Your task to perform on an android device: Open Google Chrome and open the bookmarks view Image 0: 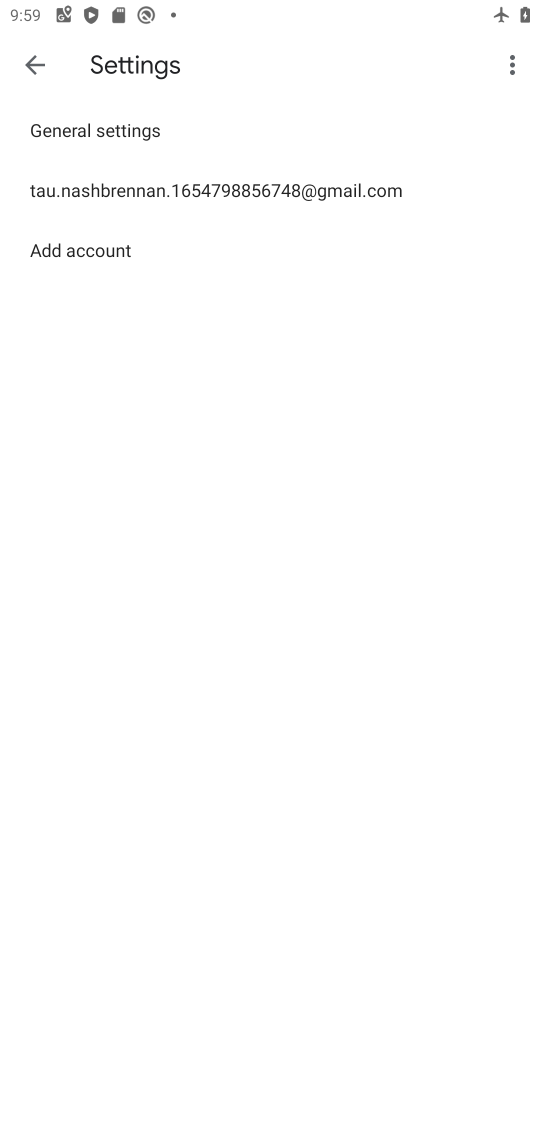
Step 0: press home button
Your task to perform on an android device: Open Google Chrome and open the bookmarks view Image 1: 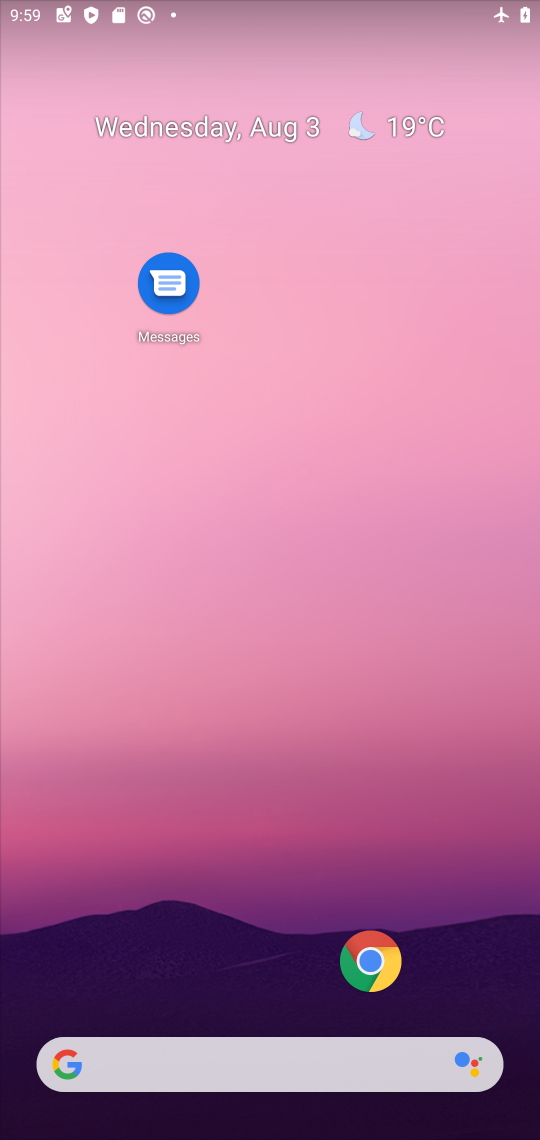
Step 1: click (396, 960)
Your task to perform on an android device: Open Google Chrome and open the bookmarks view Image 2: 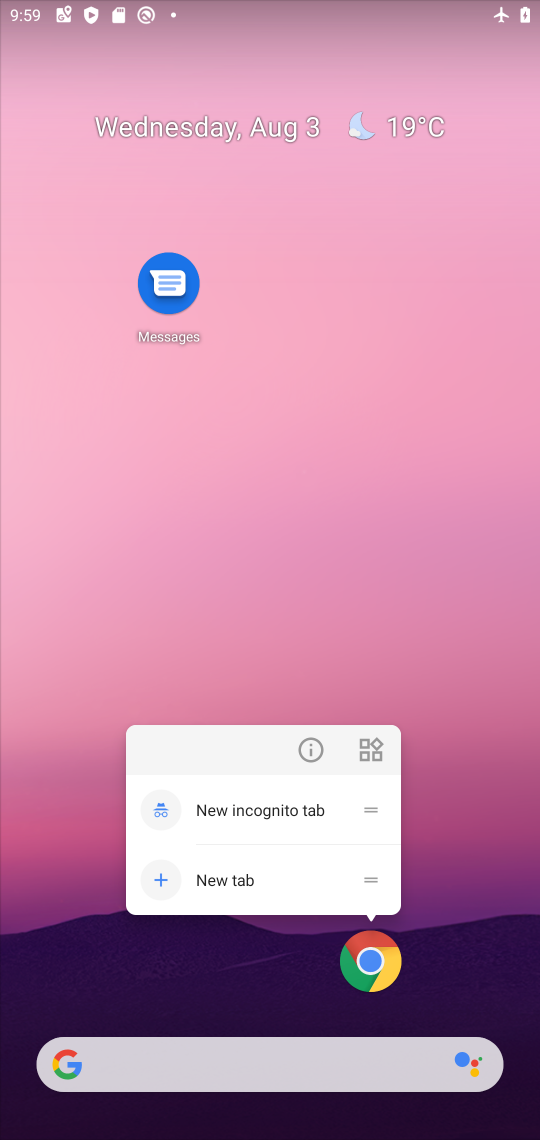
Step 2: click (392, 960)
Your task to perform on an android device: Open Google Chrome and open the bookmarks view Image 3: 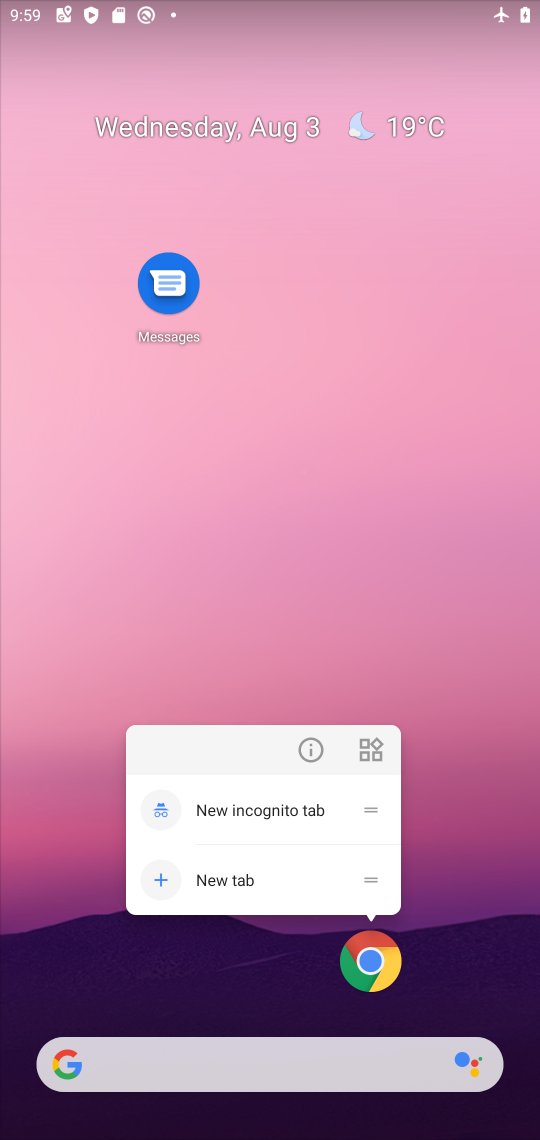
Step 3: click (371, 970)
Your task to perform on an android device: Open Google Chrome and open the bookmarks view Image 4: 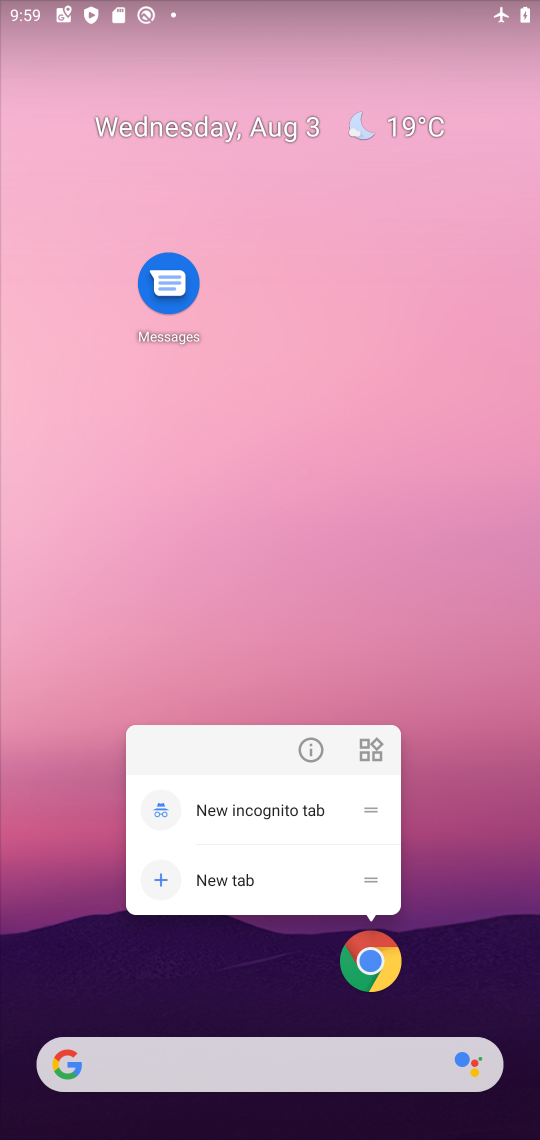
Step 4: click (369, 968)
Your task to perform on an android device: Open Google Chrome and open the bookmarks view Image 5: 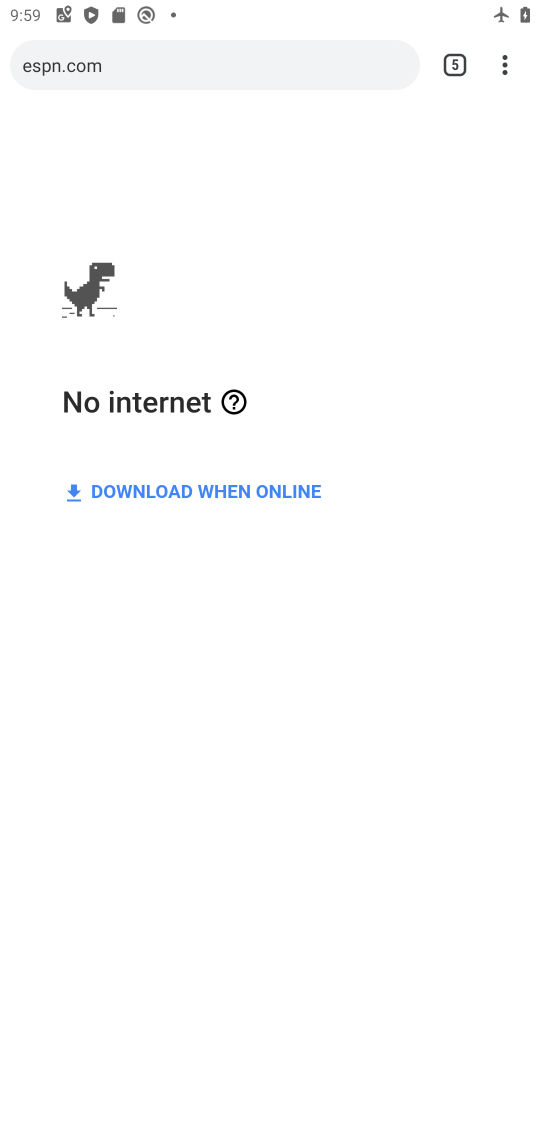
Step 5: task complete